Your task to perform on an android device: Open the calendar app, open the side menu, and click the "Day" option Image 0: 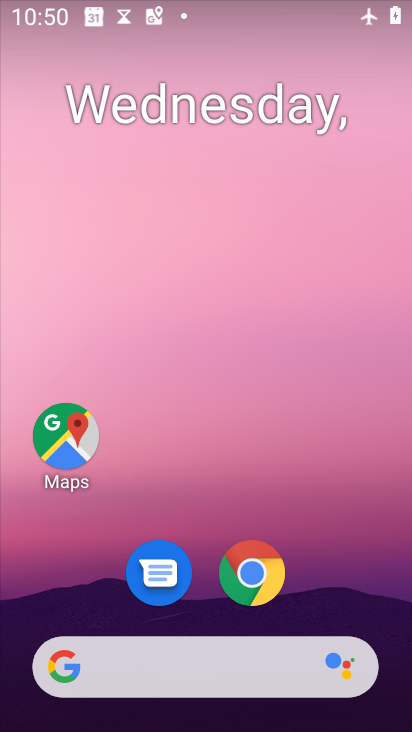
Step 0: drag from (308, 550) to (301, 260)
Your task to perform on an android device: Open the calendar app, open the side menu, and click the "Day" option Image 1: 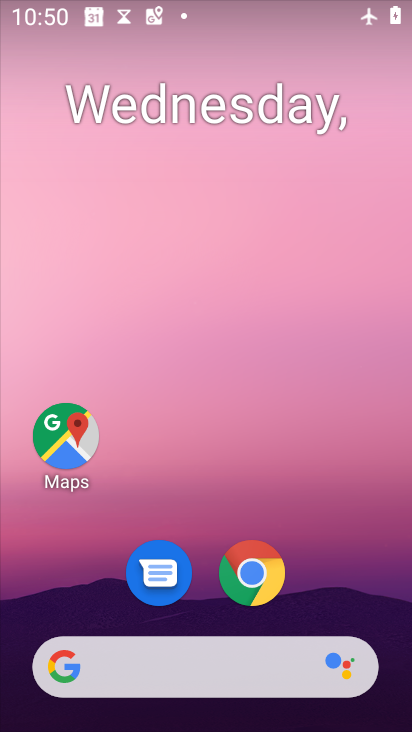
Step 1: drag from (319, 591) to (349, 225)
Your task to perform on an android device: Open the calendar app, open the side menu, and click the "Day" option Image 2: 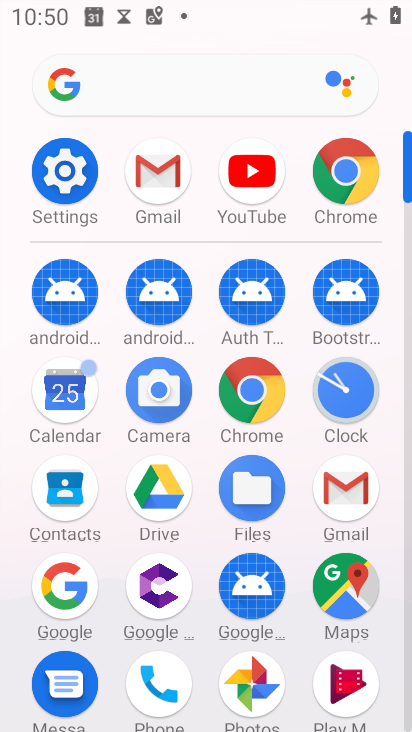
Step 2: click (47, 383)
Your task to perform on an android device: Open the calendar app, open the side menu, and click the "Day" option Image 3: 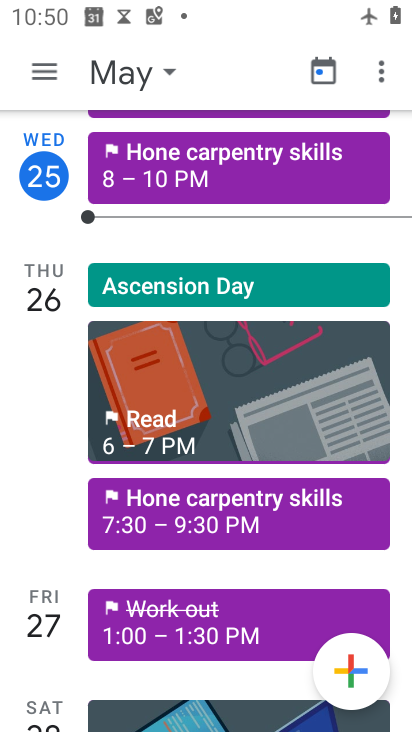
Step 3: click (43, 58)
Your task to perform on an android device: Open the calendar app, open the side menu, and click the "Day" option Image 4: 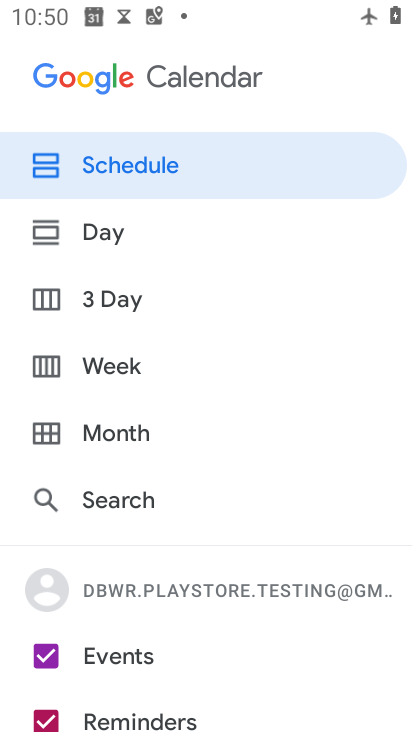
Step 4: click (109, 238)
Your task to perform on an android device: Open the calendar app, open the side menu, and click the "Day" option Image 5: 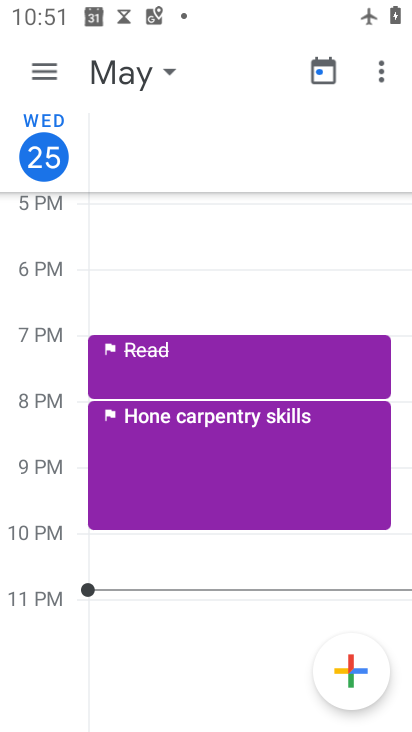
Step 5: click (47, 70)
Your task to perform on an android device: Open the calendar app, open the side menu, and click the "Day" option Image 6: 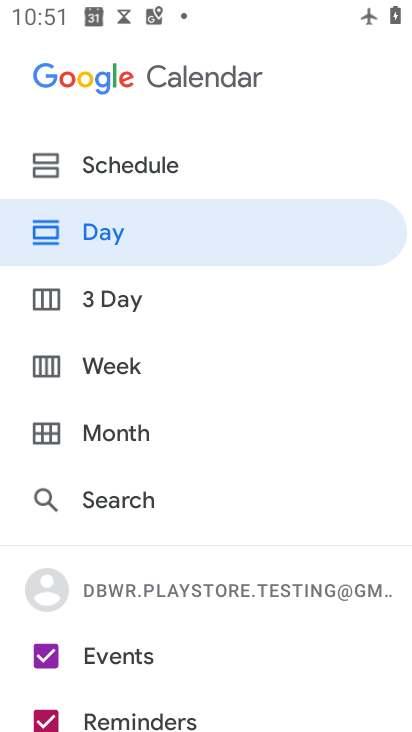
Step 6: click (115, 226)
Your task to perform on an android device: Open the calendar app, open the side menu, and click the "Day" option Image 7: 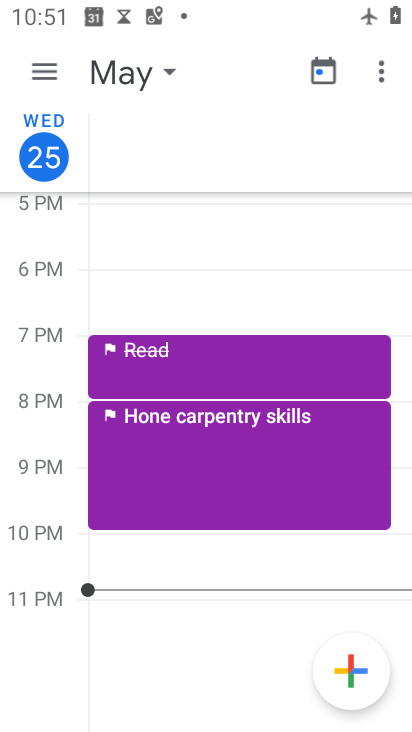
Step 7: task complete